Your task to perform on an android device: Clear the shopping cart on amazon.com. Search for apple airpods pro on amazon.com, select the first entry, add it to the cart, then select checkout. Image 0: 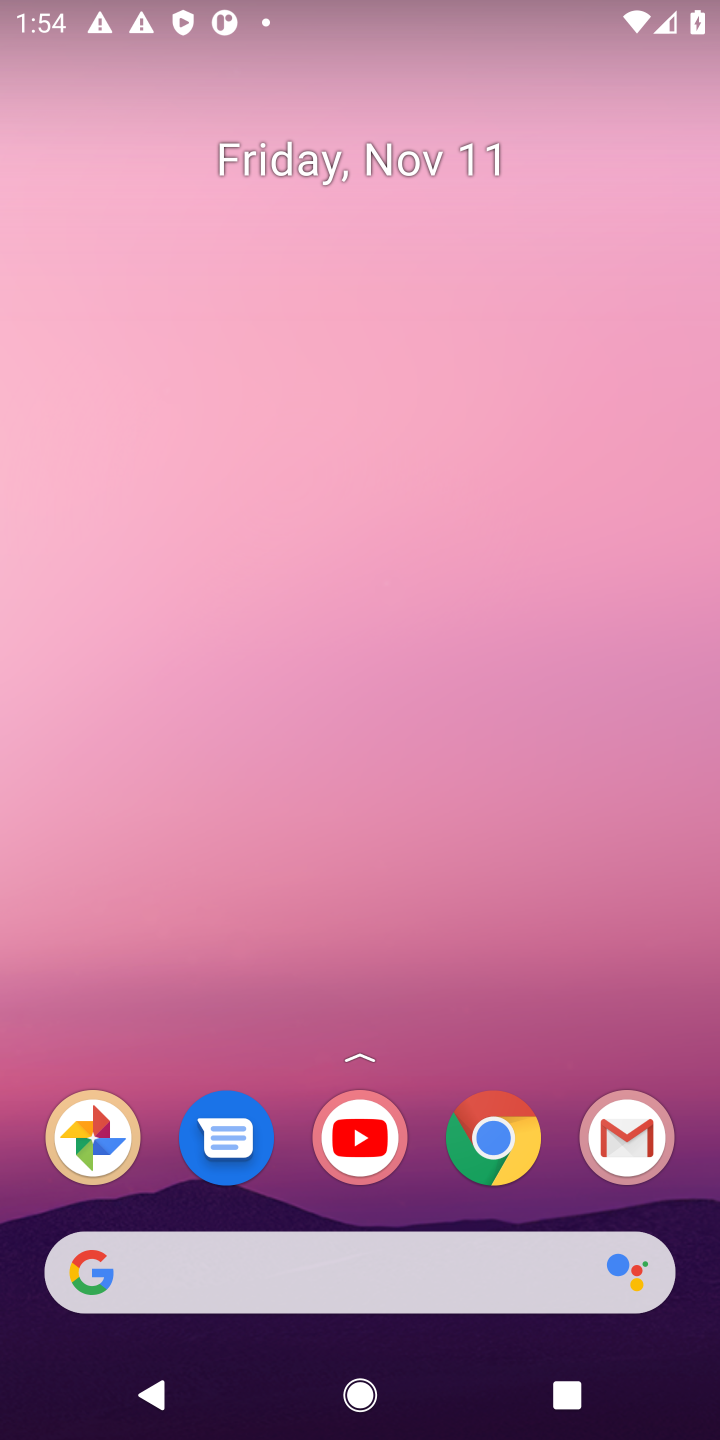
Step 0: click (492, 1158)
Your task to perform on an android device: Clear the shopping cart on amazon.com. Search for apple airpods pro on amazon.com, select the first entry, add it to the cart, then select checkout. Image 1: 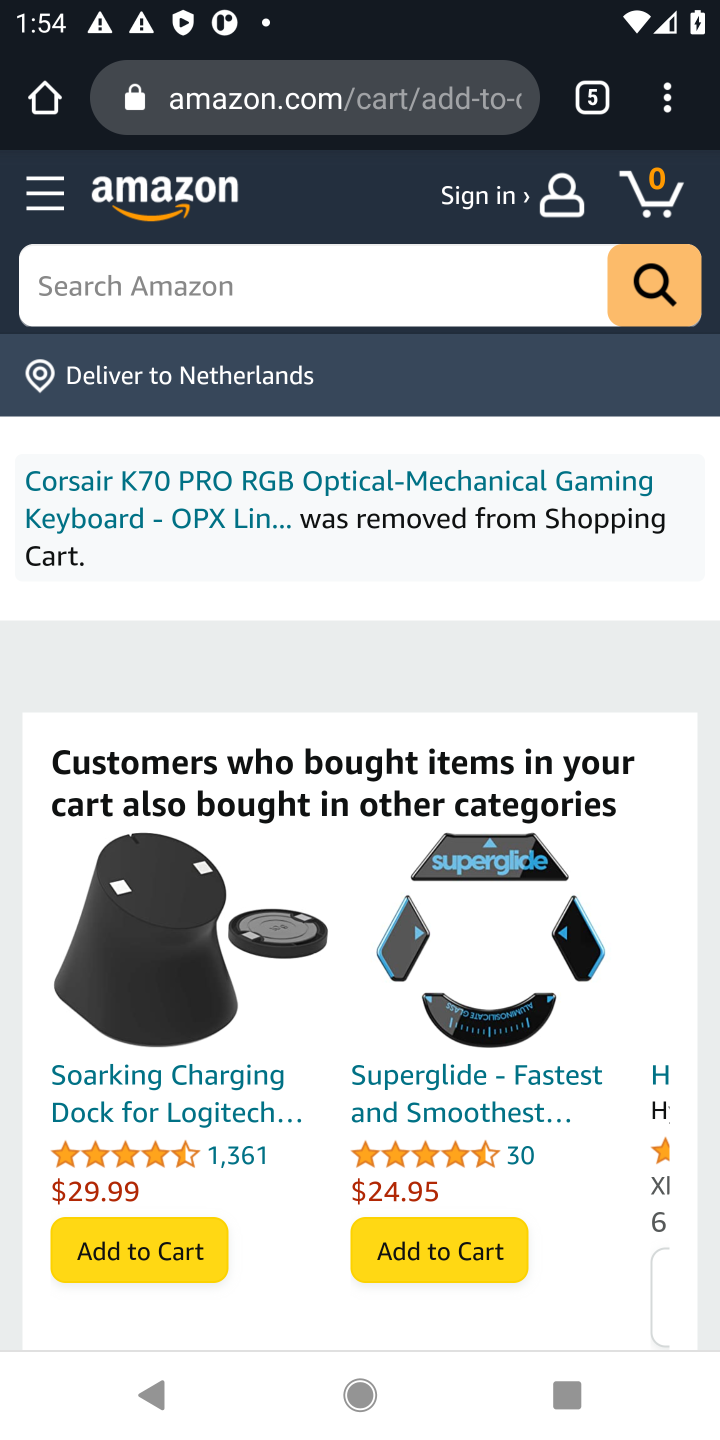
Step 1: click (294, 304)
Your task to perform on an android device: Clear the shopping cart on amazon.com. Search for apple airpods pro on amazon.com, select the first entry, add it to the cart, then select checkout. Image 2: 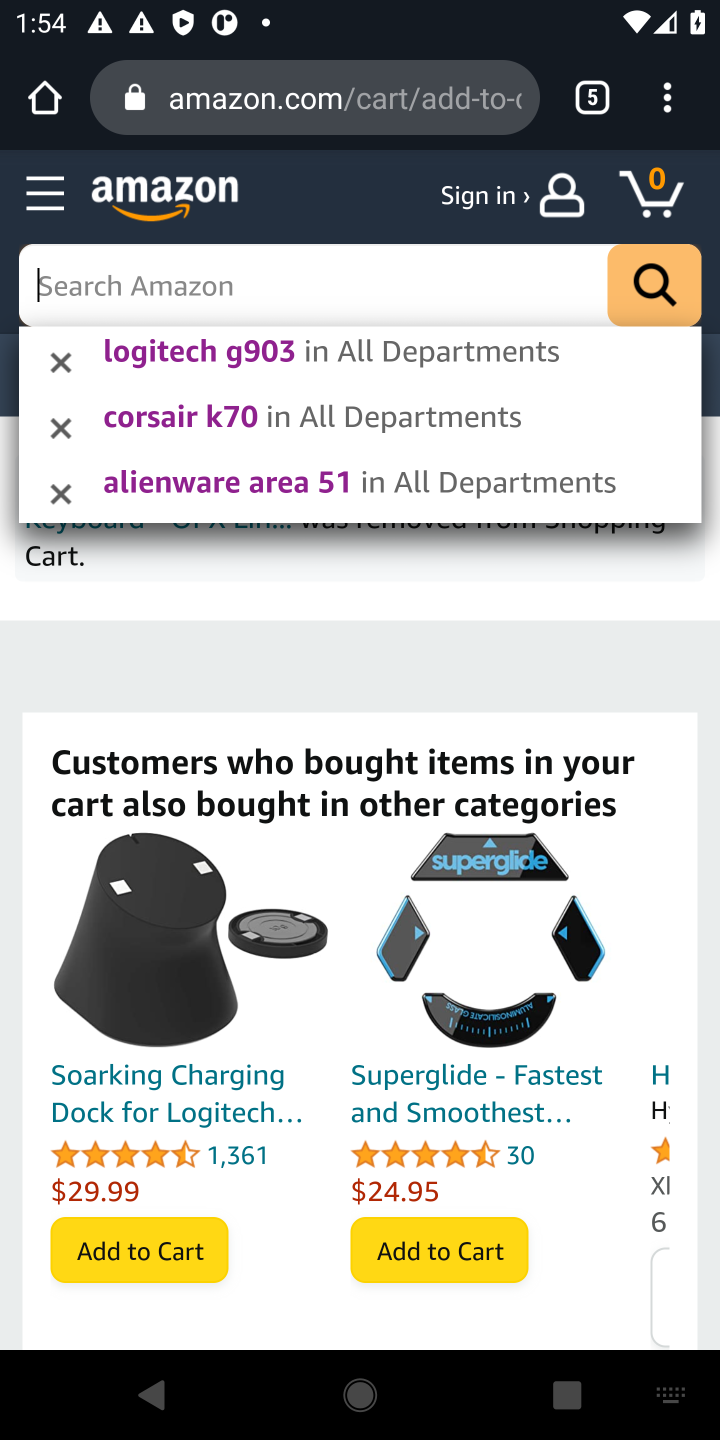
Step 2: type "apple airpods pro"
Your task to perform on an android device: Clear the shopping cart on amazon.com. Search for apple airpods pro on amazon.com, select the first entry, add it to the cart, then select checkout. Image 3: 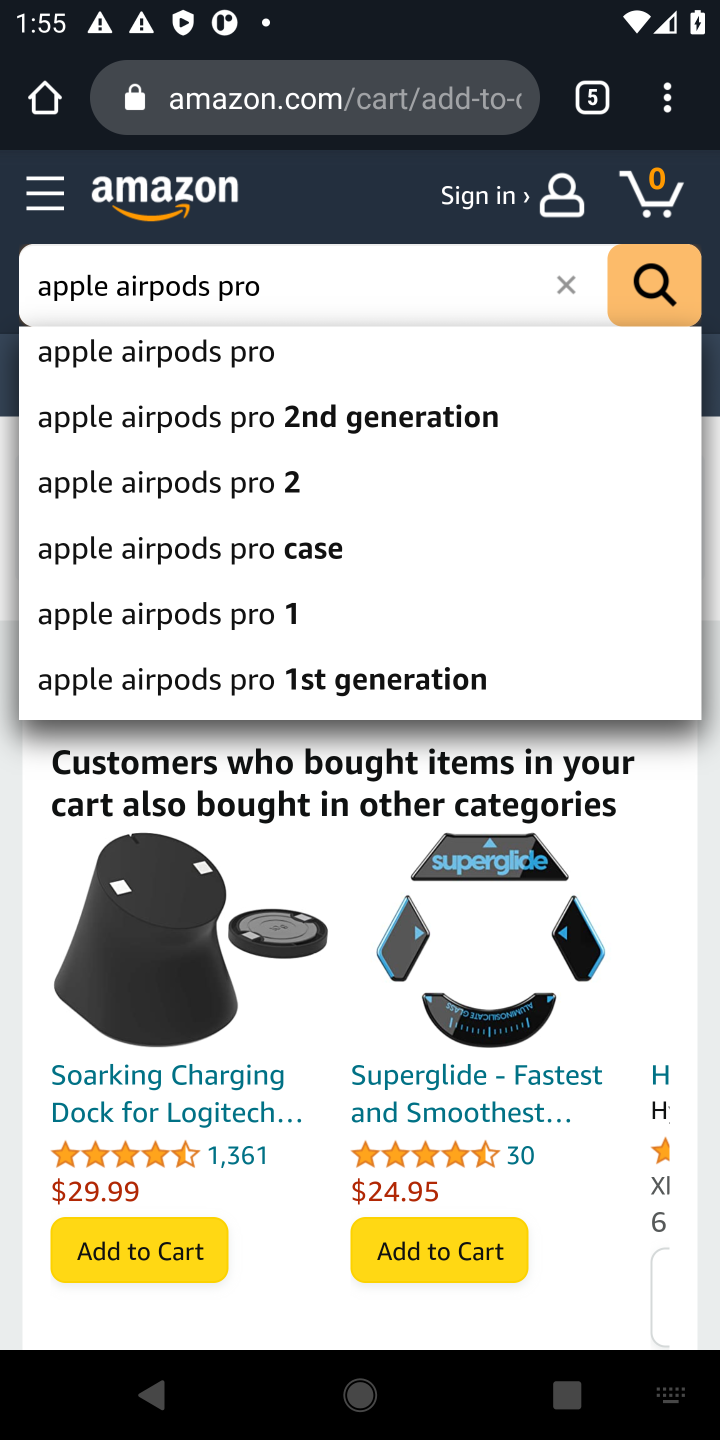
Step 3: click (221, 351)
Your task to perform on an android device: Clear the shopping cart on amazon.com. Search for apple airpods pro on amazon.com, select the first entry, add it to the cart, then select checkout. Image 4: 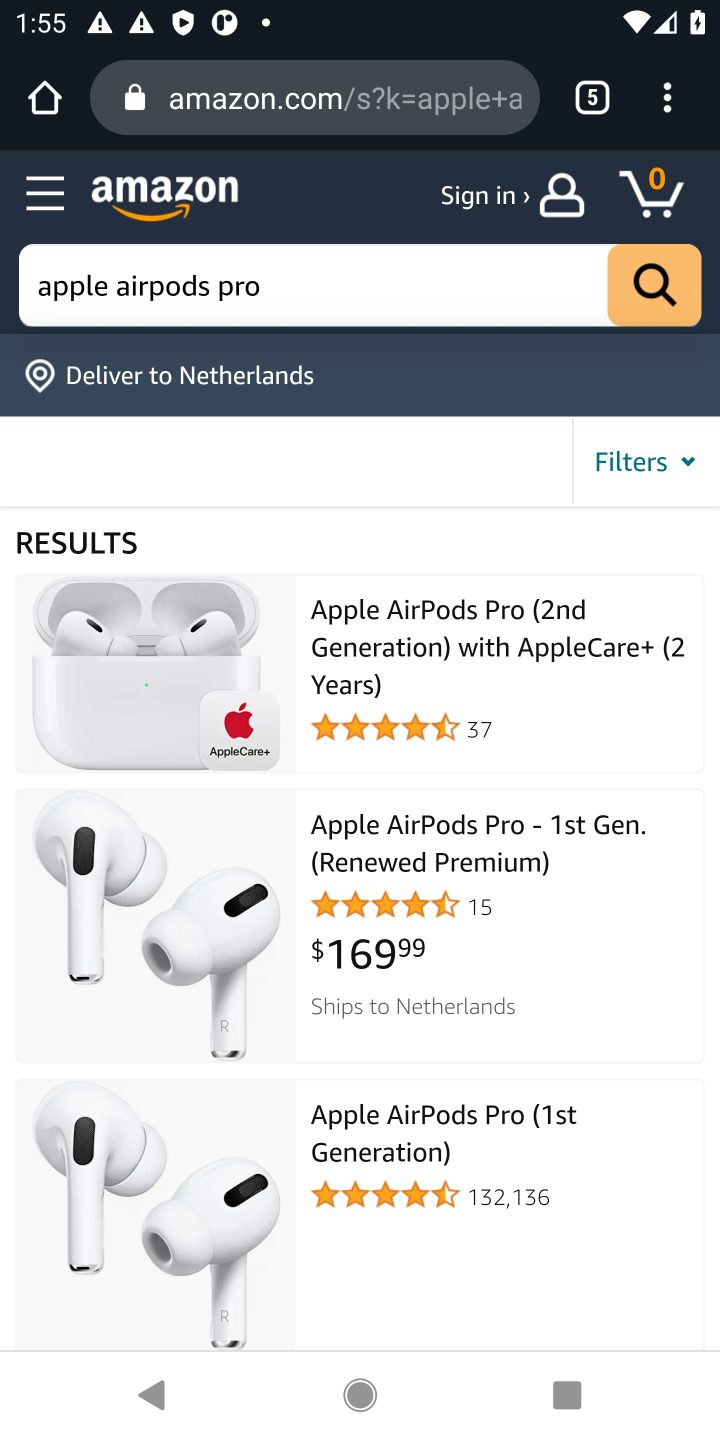
Step 4: click (383, 653)
Your task to perform on an android device: Clear the shopping cart on amazon.com. Search for apple airpods pro on amazon.com, select the first entry, add it to the cart, then select checkout. Image 5: 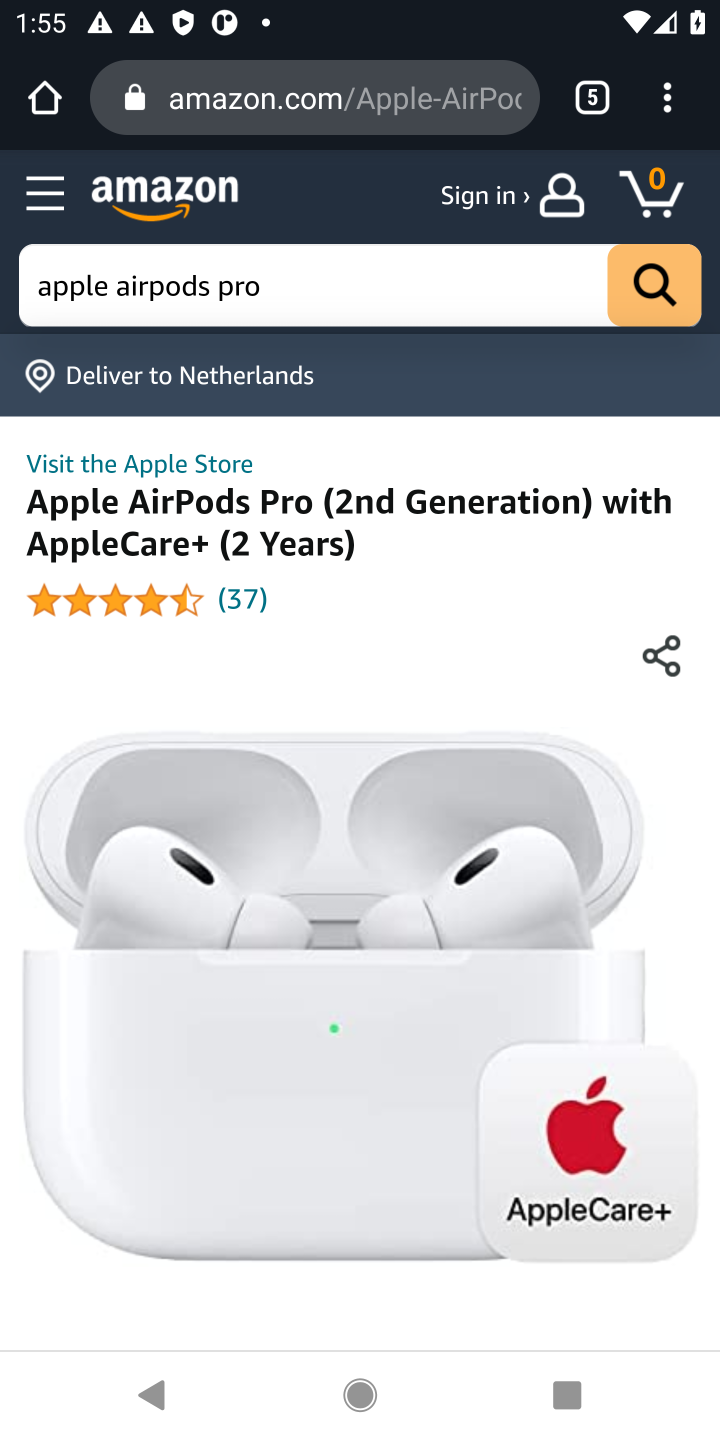
Step 5: drag from (375, 1015) to (404, 325)
Your task to perform on an android device: Clear the shopping cart on amazon.com. Search for apple airpods pro on amazon.com, select the first entry, add it to the cart, then select checkout. Image 6: 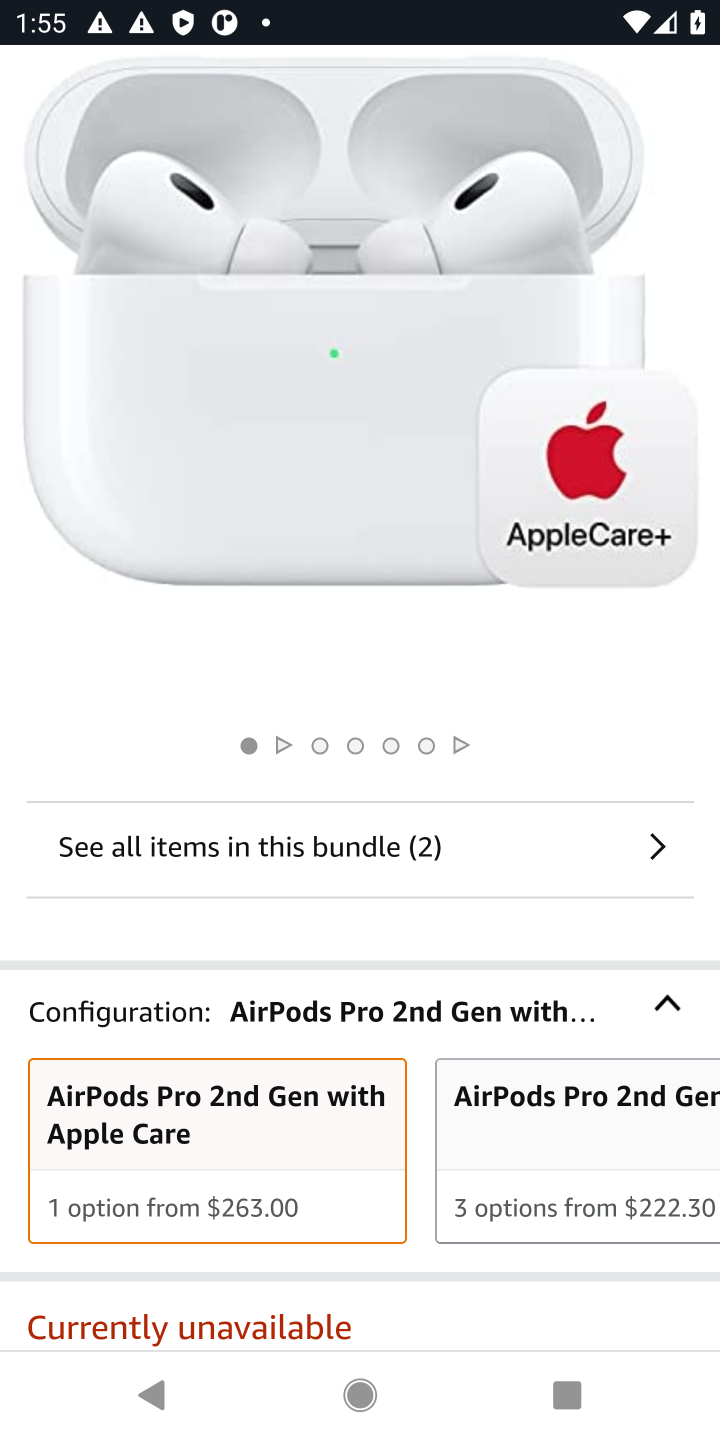
Step 6: drag from (327, 1093) to (483, 333)
Your task to perform on an android device: Clear the shopping cart on amazon.com. Search for apple airpods pro on amazon.com, select the first entry, add it to the cart, then select checkout. Image 7: 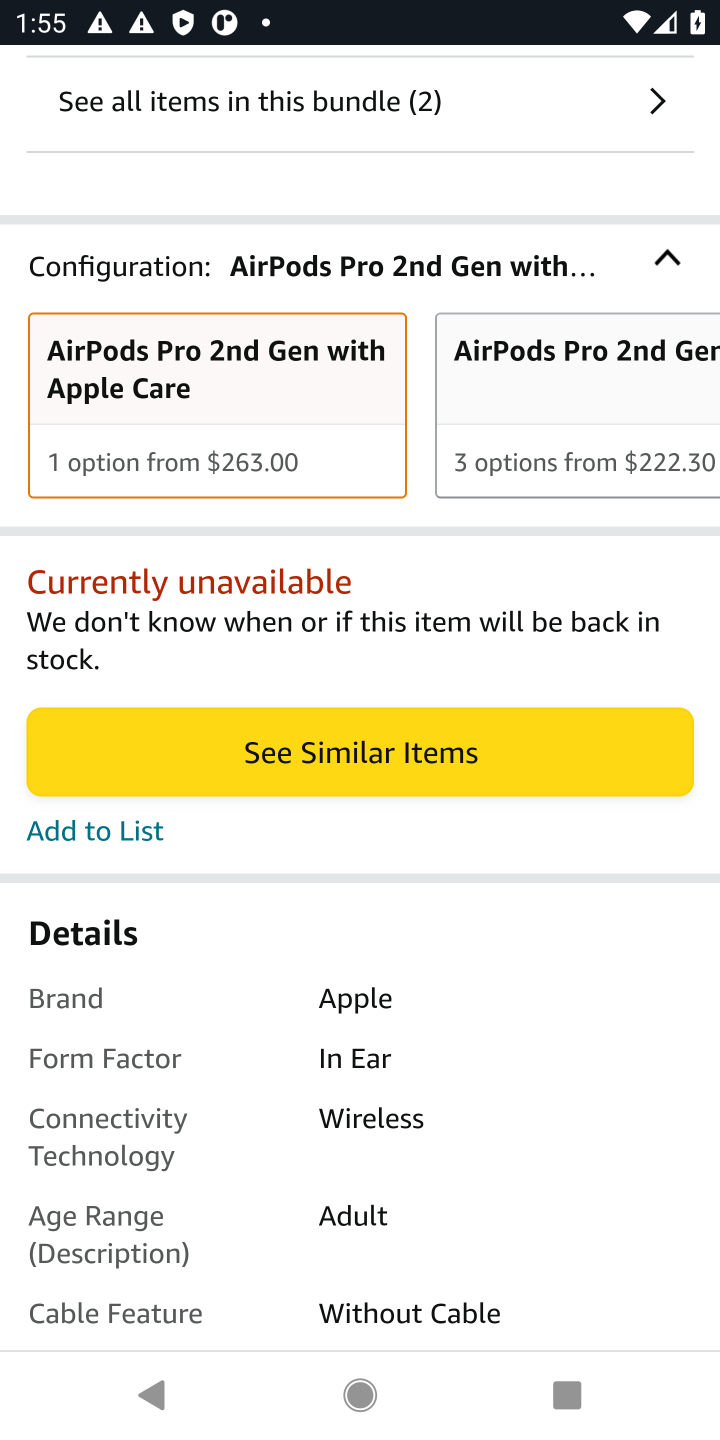
Step 7: click (394, 767)
Your task to perform on an android device: Clear the shopping cart on amazon.com. Search for apple airpods pro on amazon.com, select the first entry, add it to the cart, then select checkout. Image 8: 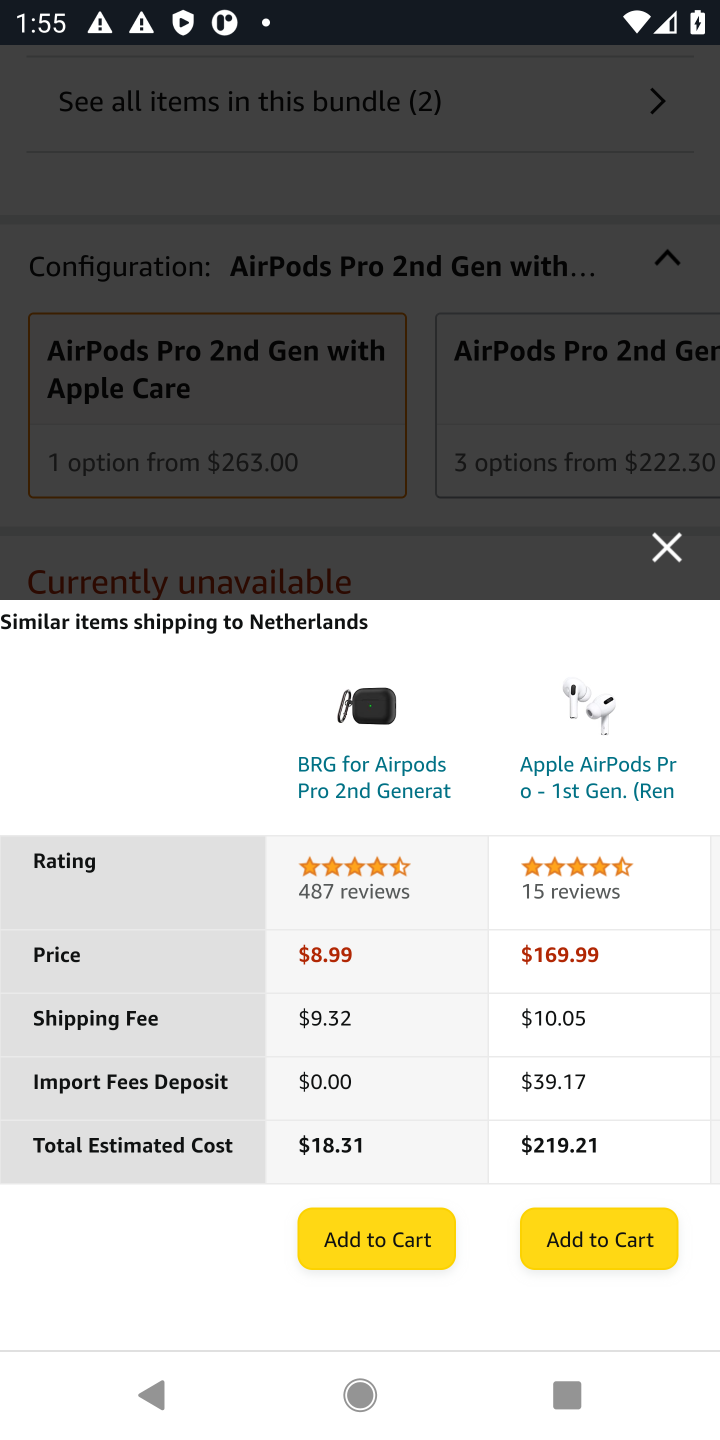
Step 8: click (368, 1244)
Your task to perform on an android device: Clear the shopping cart on amazon.com. Search for apple airpods pro on amazon.com, select the first entry, add it to the cart, then select checkout. Image 9: 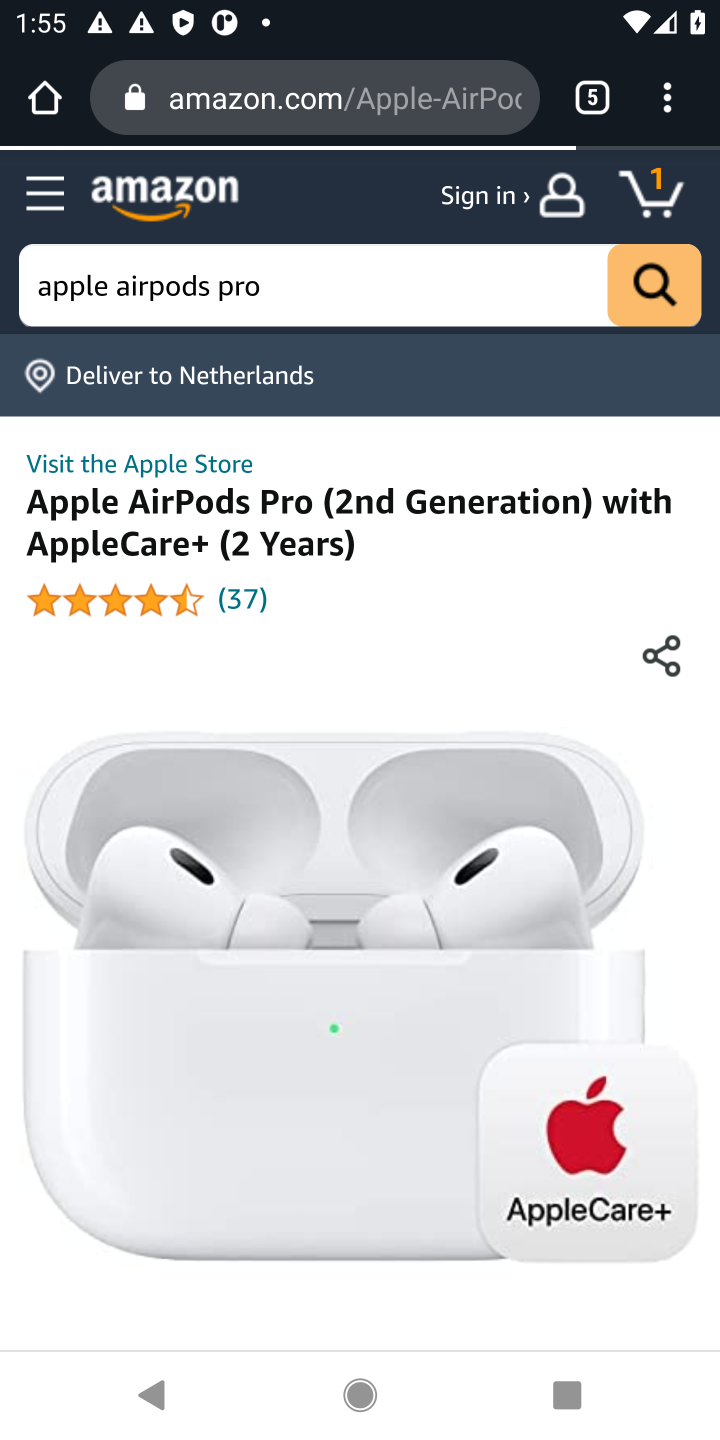
Step 9: task complete